Your task to perform on an android device: open the mobile data screen to see how much data has been used Image 0: 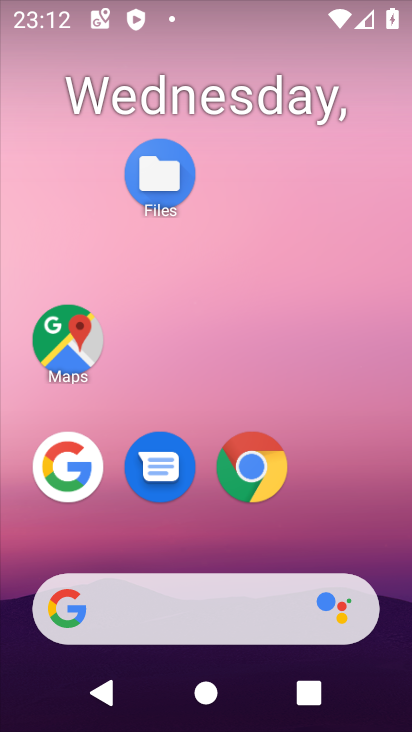
Step 0: drag from (231, 558) to (253, 146)
Your task to perform on an android device: open the mobile data screen to see how much data has been used Image 1: 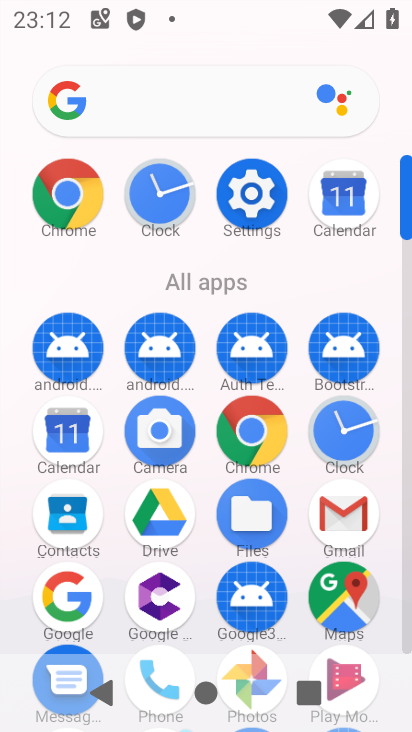
Step 1: click (254, 173)
Your task to perform on an android device: open the mobile data screen to see how much data has been used Image 2: 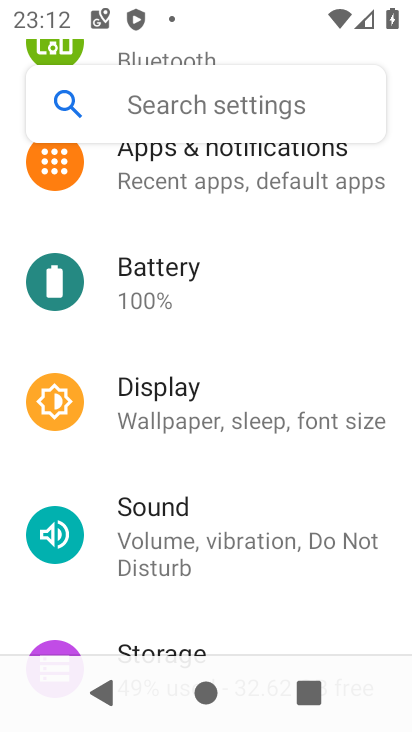
Step 2: drag from (199, 207) to (182, 621)
Your task to perform on an android device: open the mobile data screen to see how much data has been used Image 3: 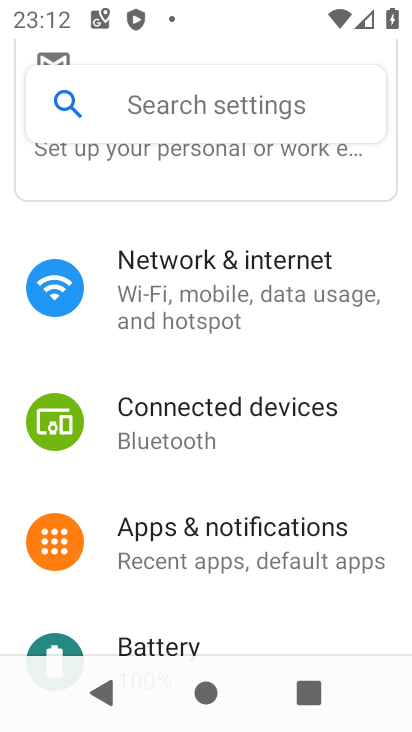
Step 3: click (157, 277)
Your task to perform on an android device: open the mobile data screen to see how much data has been used Image 4: 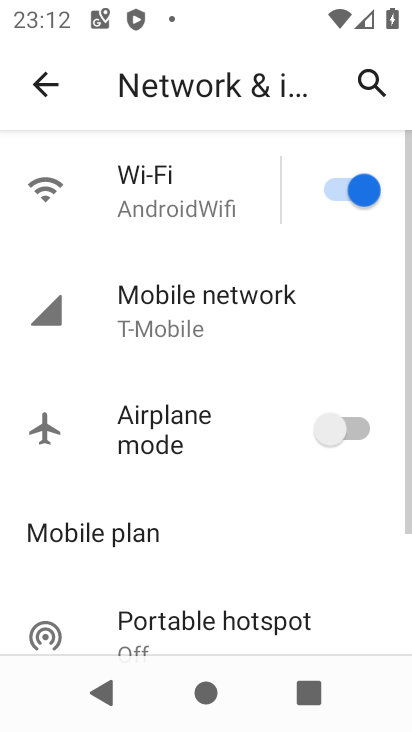
Step 4: click (165, 342)
Your task to perform on an android device: open the mobile data screen to see how much data has been used Image 5: 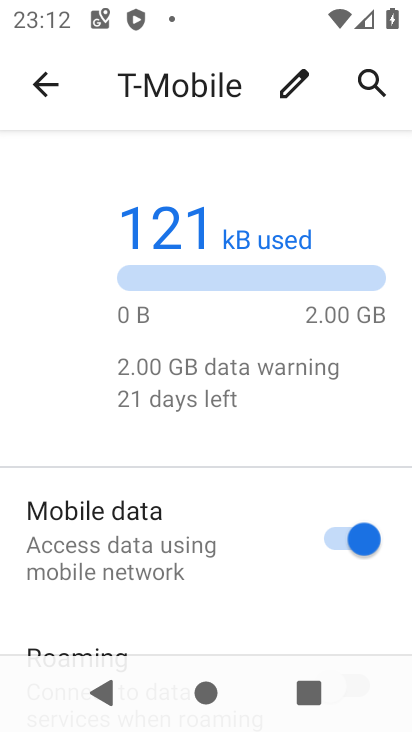
Step 5: task complete